Your task to perform on an android device: delete browsing data in the chrome app Image 0: 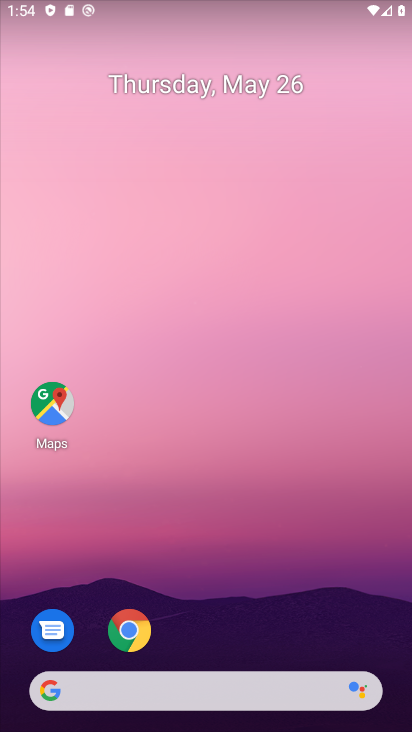
Step 0: click (130, 631)
Your task to perform on an android device: delete browsing data in the chrome app Image 1: 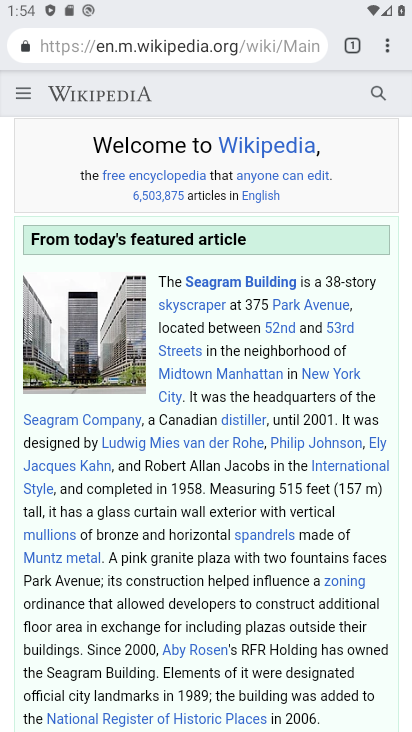
Step 1: click (391, 55)
Your task to perform on an android device: delete browsing data in the chrome app Image 2: 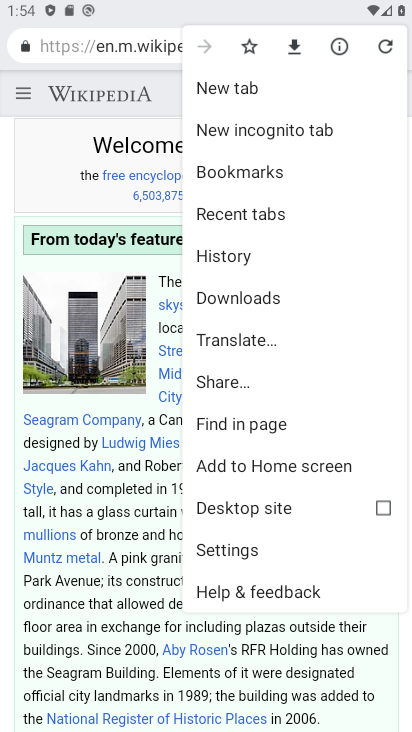
Step 2: click (257, 553)
Your task to perform on an android device: delete browsing data in the chrome app Image 3: 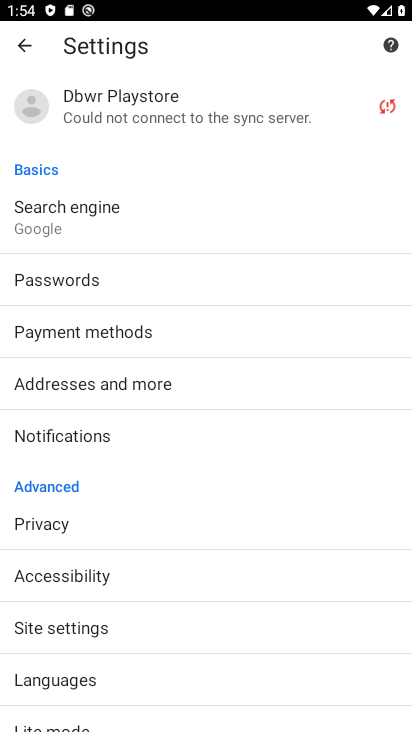
Step 3: drag from (275, 642) to (222, 357)
Your task to perform on an android device: delete browsing data in the chrome app Image 4: 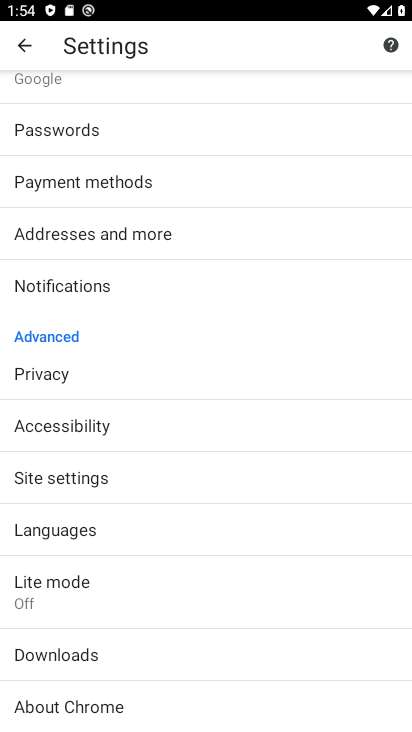
Step 4: click (164, 486)
Your task to perform on an android device: delete browsing data in the chrome app Image 5: 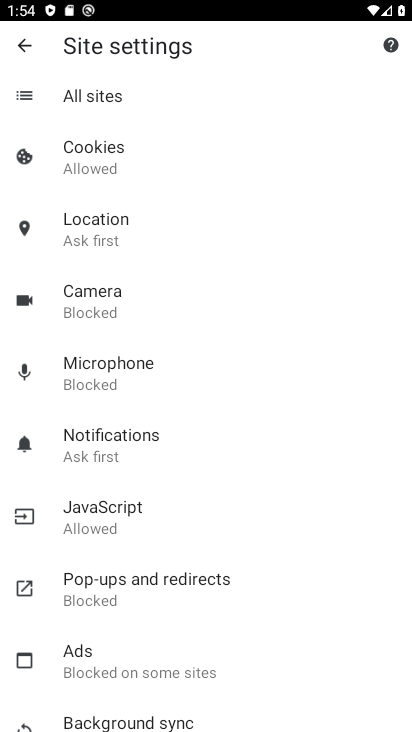
Step 5: drag from (122, 683) to (105, 475)
Your task to perform on an android device: delete browsing data in the chrome app Image 6: 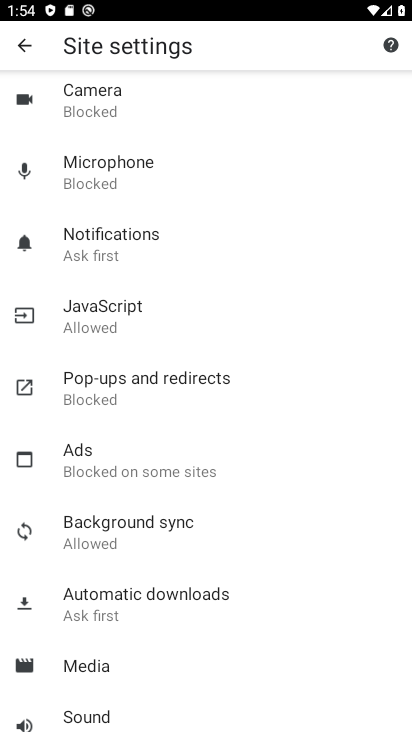
Step 6: click (183, 556)
Your task to perform on an android device: delete browsing data in the chrome app Image 7: 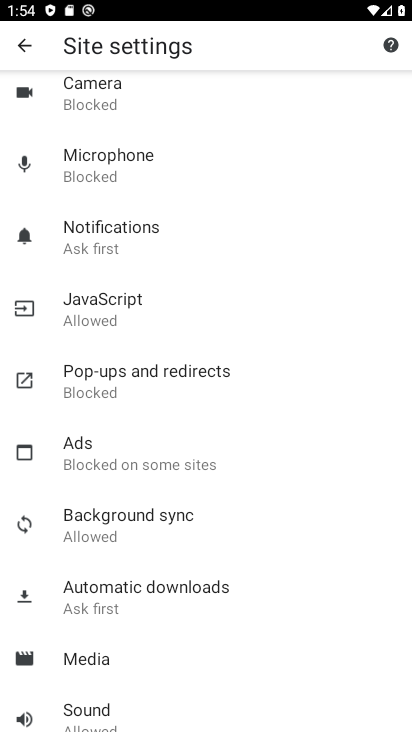
Step 7: drag from (305, 692) to (328, 219)
Your task to perform on an android device: delete browsing data in the chrome app Image 8: 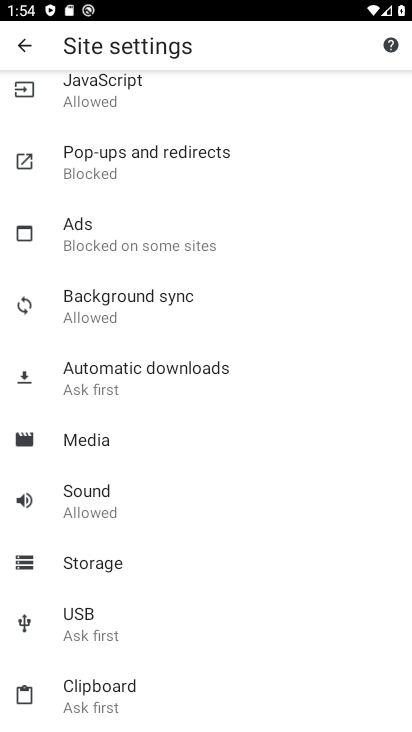
Step 8: drag from (265, 615) to (278, 225)
Your task to perform on an android device: delete browsing data in the chrome app Image 9: 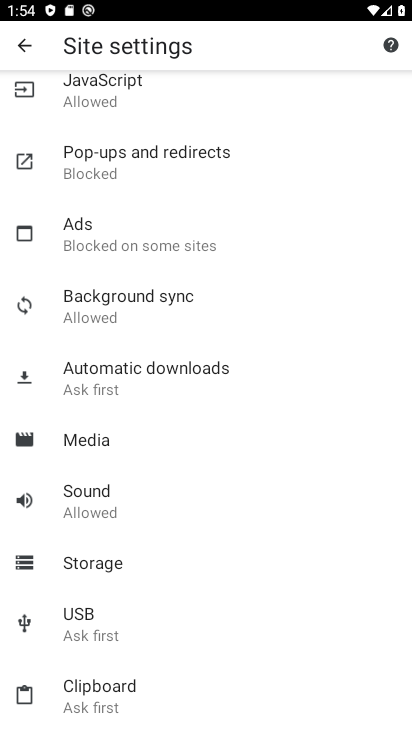
Step 9: drag from (289, 162) to (299, 694)
Your task to perform on an android device: delete browsing data in the chrome app Image 10: 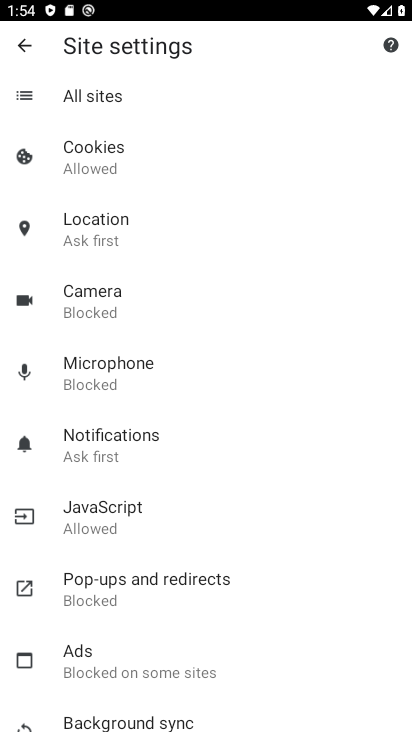
Step 10: drag from (220, 221) to (230, 623)
Your task to perform on an android device: delete browsing data in the chrome app Image 11: 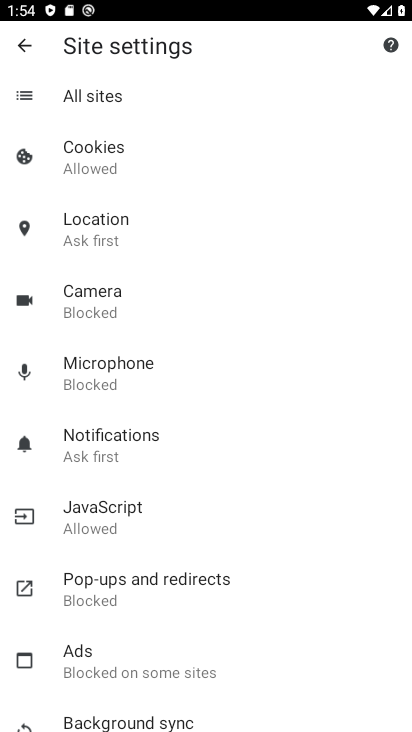
Step 11: press back button
Your task to perform on an android device: delete browsing data in the chrome app Image 12: 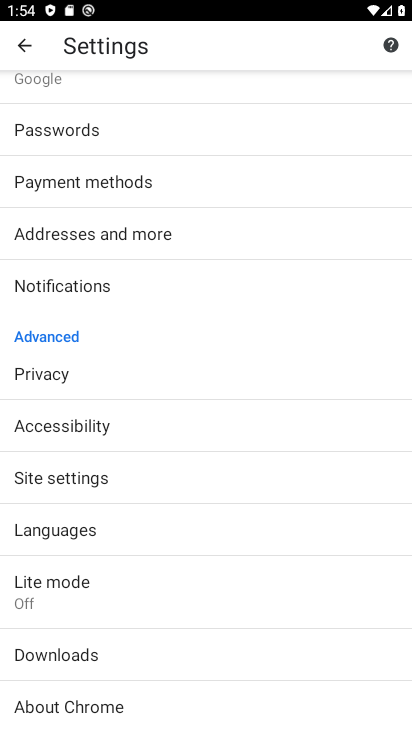
Step 12: click (97, 372)
Your task to perform on an android device: delete browsing data in the chrome app Image 13: 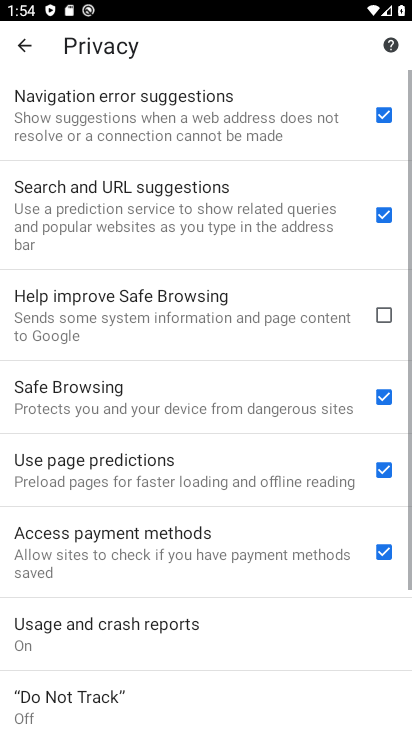
Step 13: drag from (179, 596) to (203, 114)
Your task to perform on an android device: delete browsing data in the chrome app Image 14: 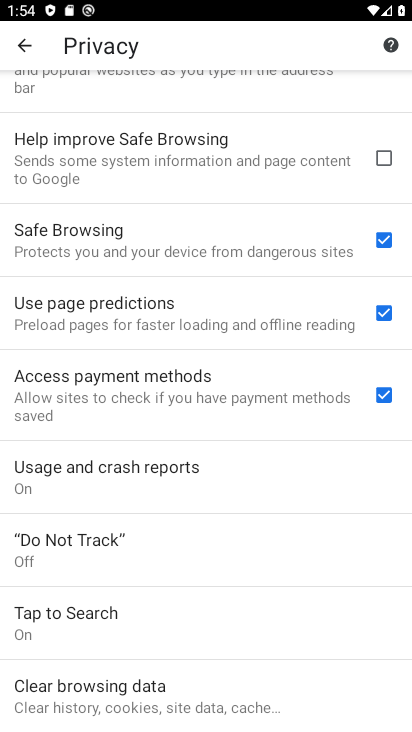
Step 14: click (207, 690)
Your task to perform on an android device: delete browsing data in the chrome app Image 15: 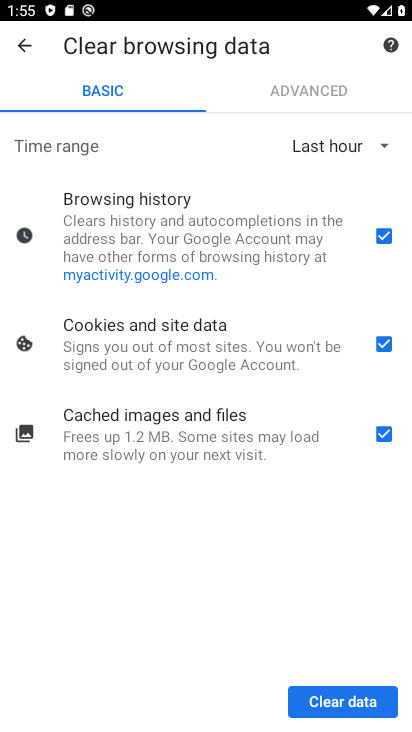
Step 15: click (367, 336)
Your task to perform on an android device: delete browsing data in the chrome app Image 16: 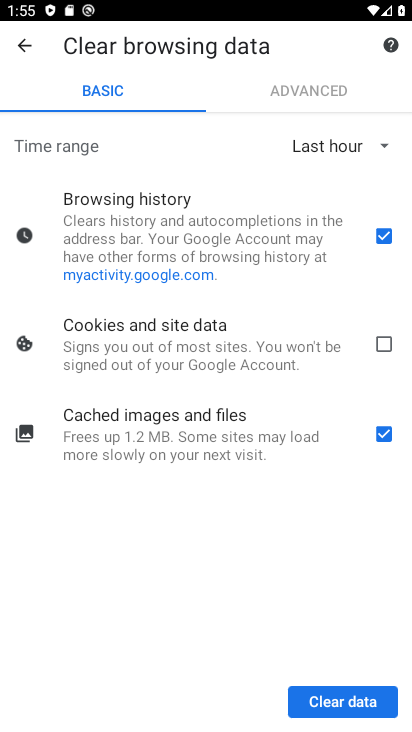
Step 16: click (383, 341)
Your task to perform on an android device: delete browsing data in the chrome app Image 17: 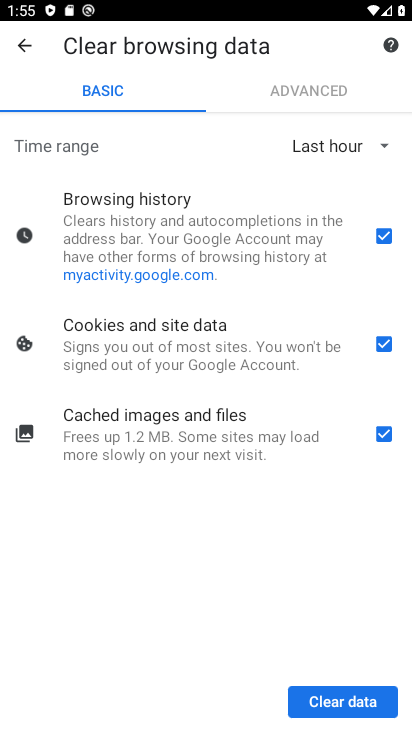
Step 17: click (306, 712)
Your task to perform on an android device: delete browsing data in the chrome app Image 18: 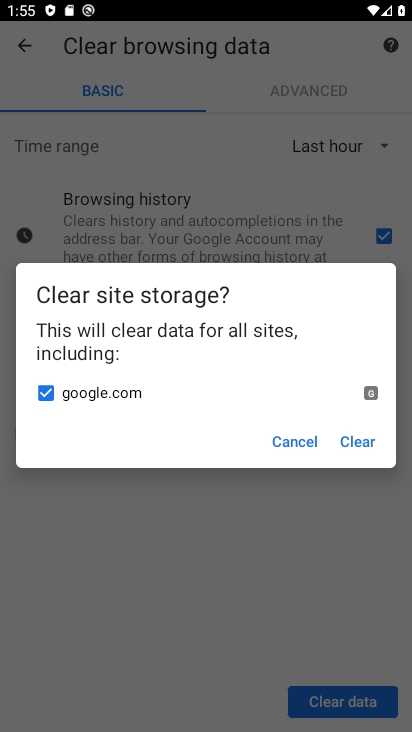
Step 18: click (354, 442)
Your task to perform on an android device: delete browsing data in the chrome app Image 19: 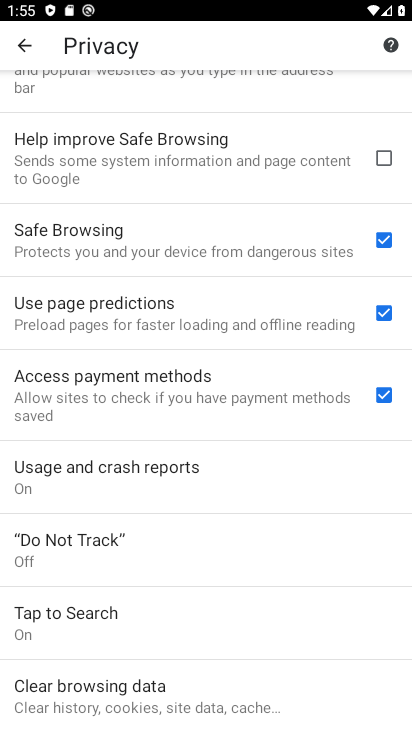
Step 19: task complete